Your task to perform on an android device: Open wifi settings Image 0: 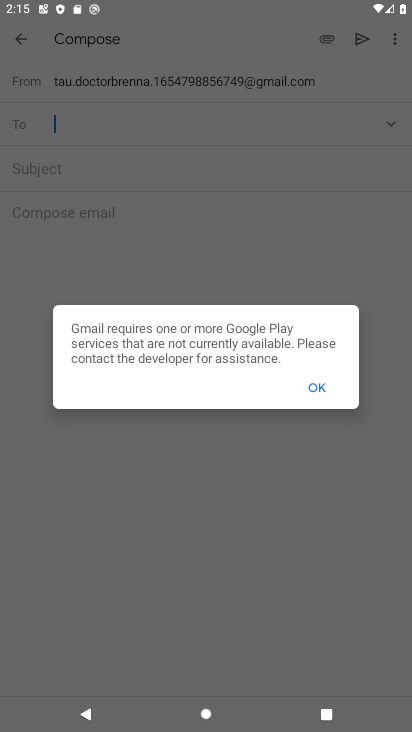
Step 0: click (311, 382)
Your task to perform on an android device: Open wifi settings Image 1: 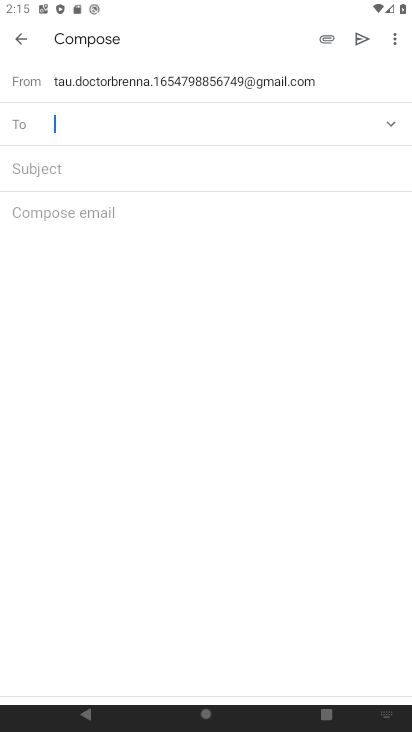
Step 1: press back button
Your task to perform on an android device: Open wifi settings Image 2: 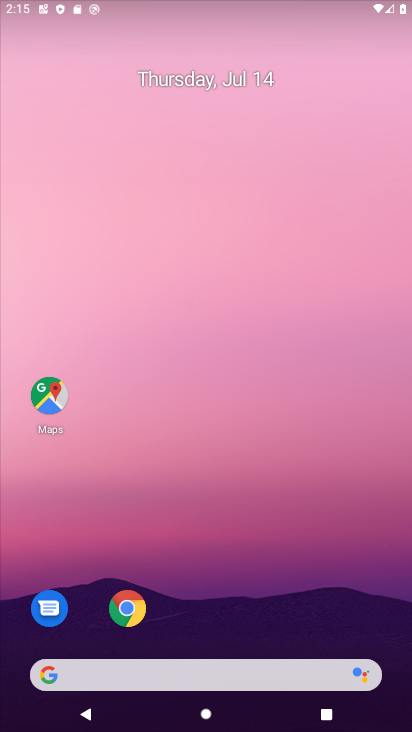
Step 2: drag from (99, 6) to (104, 607)
Your task to perform on an android device: Open wifi settings Image 3: 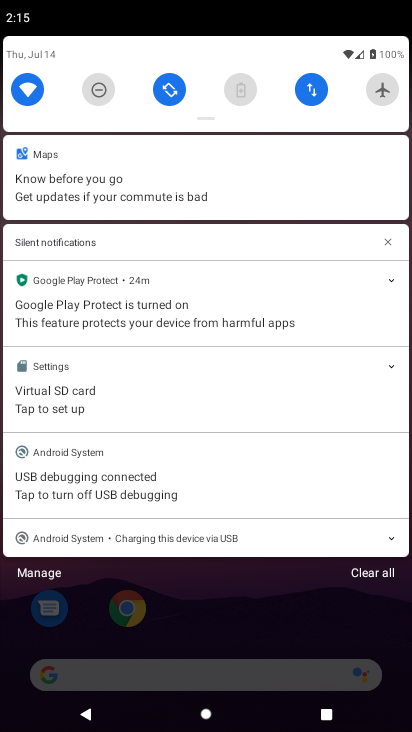
Step 3: click (27, 88)
Your task to perform on an android device: Open wifi settings Image 4: 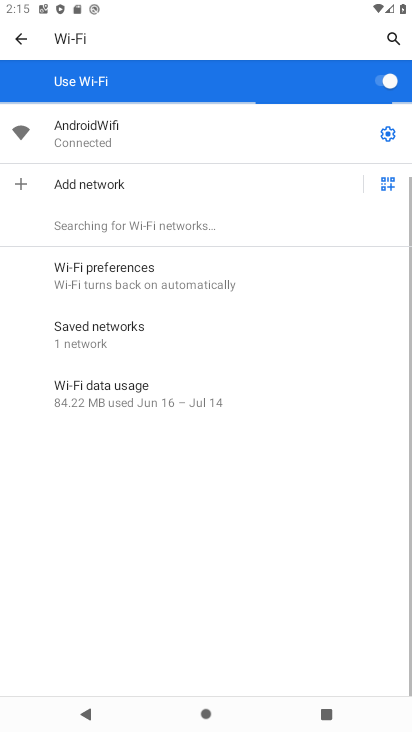
Step 4: task complete